Your task to perform on an android device: Open Amazon Image 0: 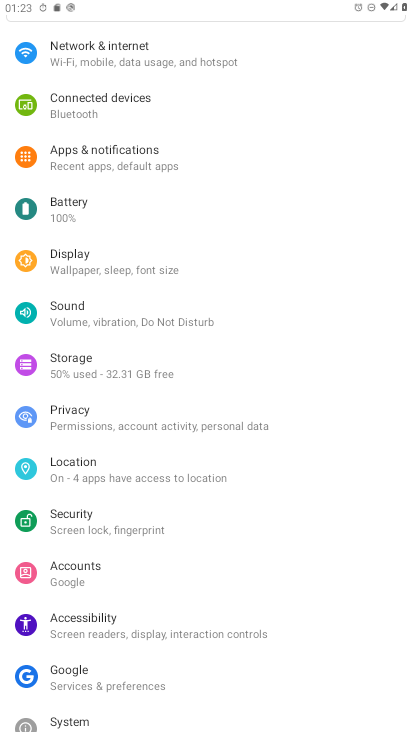
Step 0: press home button
Your task to perform on an android device: Open Amazon Image 1: 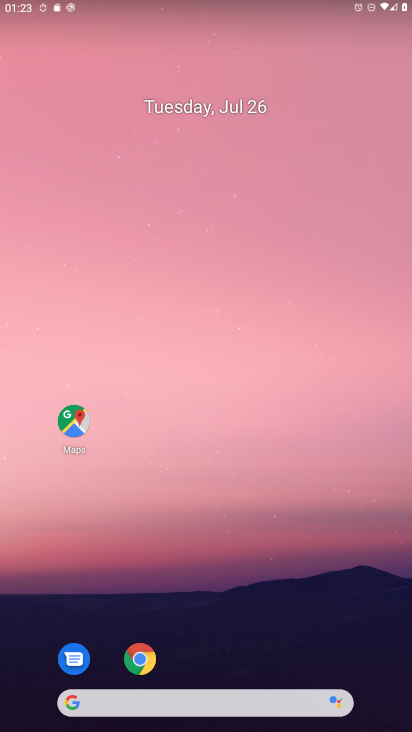
Step 1: click (143, 655)
Your task to perform on an android device: Open Amazon Image 2: 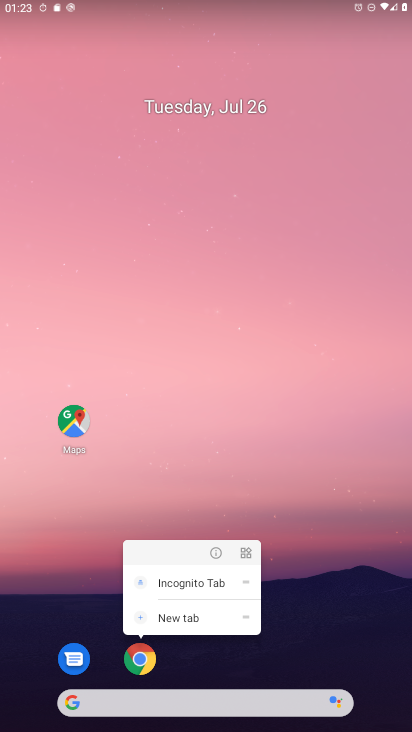
Step 2: click (145, 658)
Your task to perform on an android device: Open Amazon Image 3: 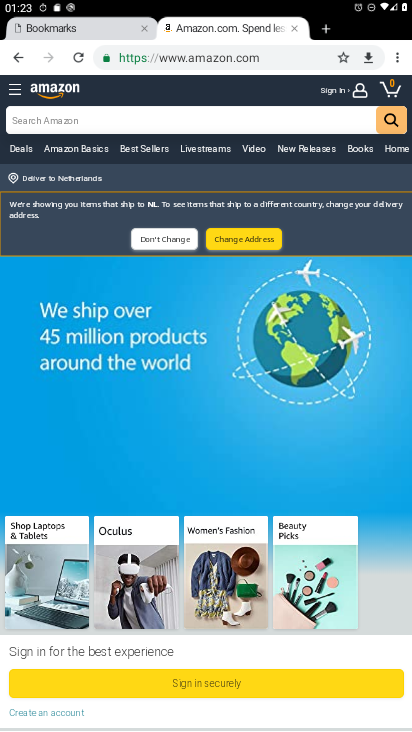
Step 3: task complete